Your task to perform on an android device: Open Google Maps Image 0: 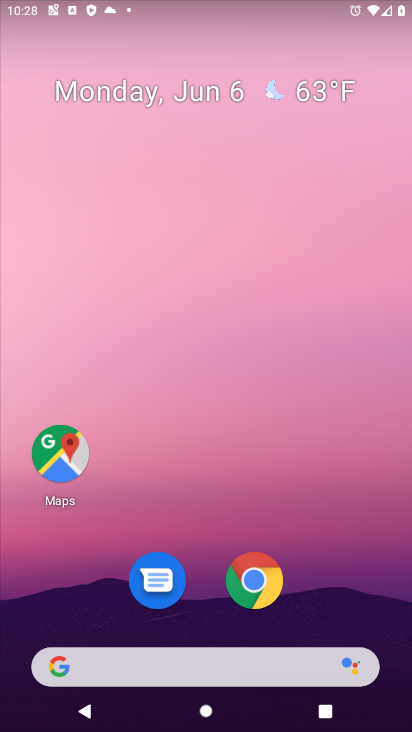
Step 0: drag from (336, 615) to (277, 3)
Your task to perform on an android device: Open Google Maps Image 1: 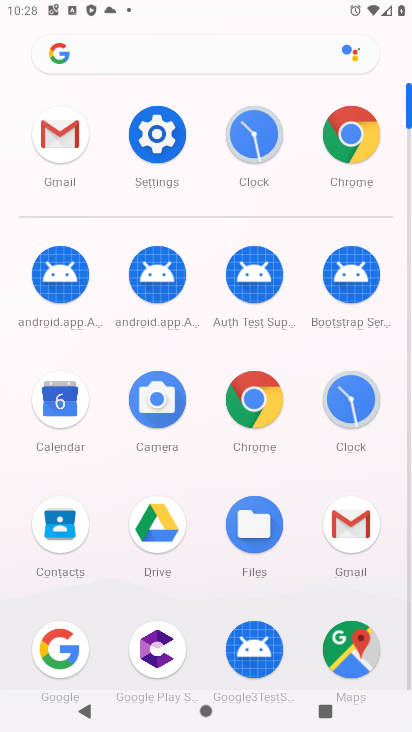
Step 1: click (345, 669)
Your task to perform on an android device: Open Google Maps Image 2: 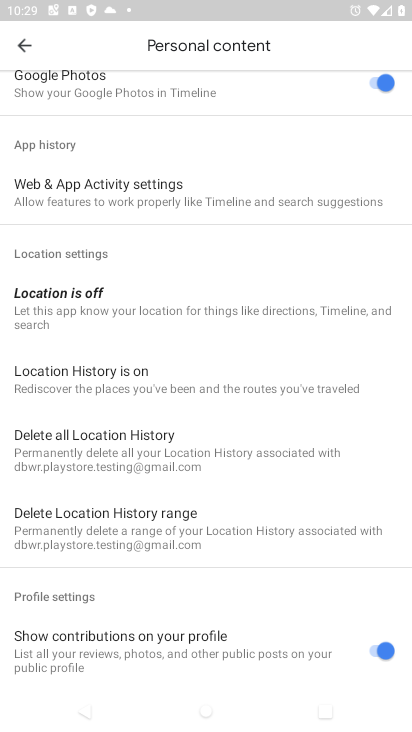
Step 2: press home button
Your task to perform on an android device: Open Google Maps Image 3: 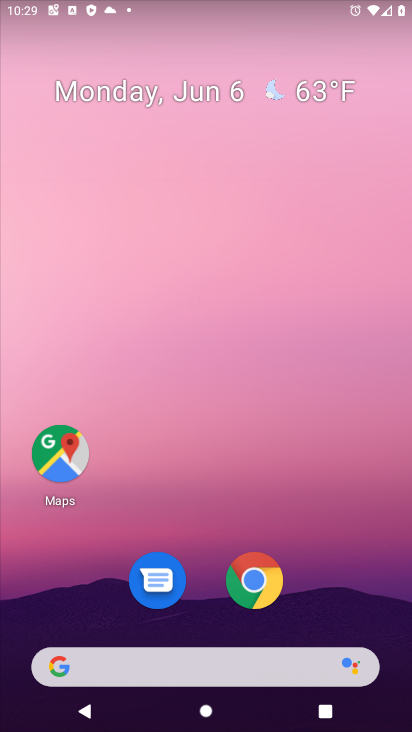
Step 3: drag from (313, 508) to (268, 57)
Your task to perform on an android device: Open Google Maps Image 4: 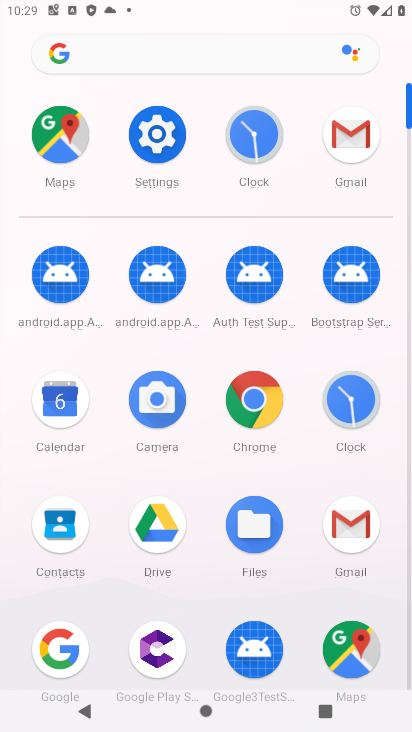
Step 4: click (344, 658)
Your task to perform on an android device: Open Google Maps Image 5: 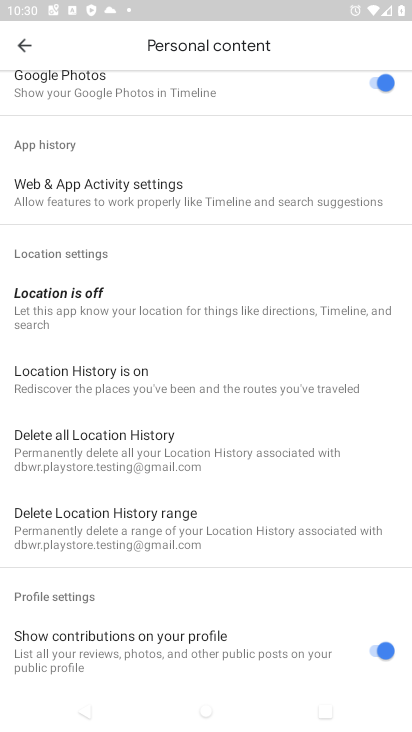
Step 5: task complete